Your task to perform on an android device: Open battery settings Image 0: 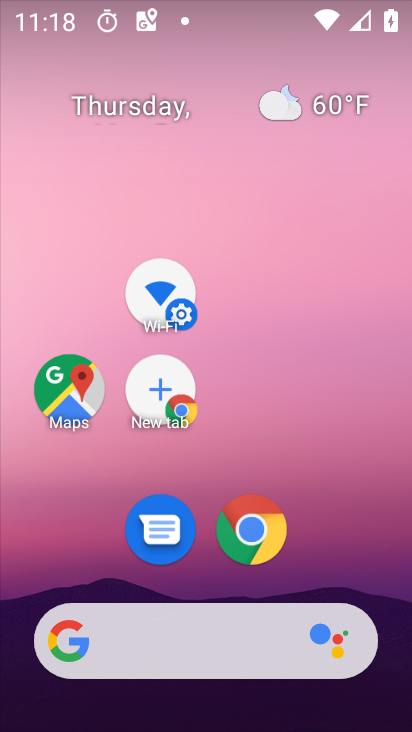
Step 0: drag from (354, 585) to (165, 221)
Your task to perform on an android device: Open battery settings Image 1: 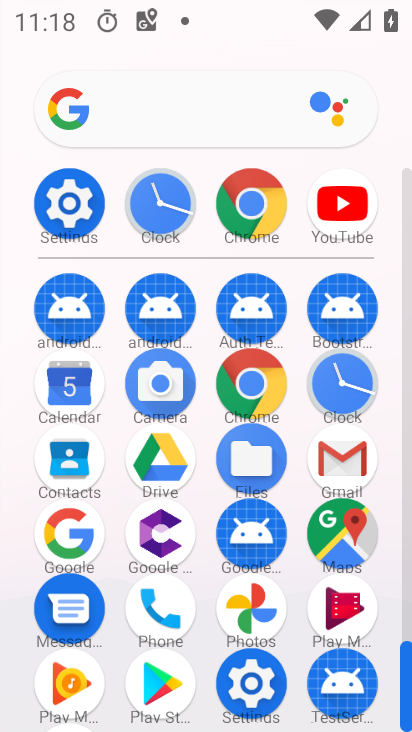
Step 1: click (250, 683)
Your task to perform on an android device: Open battery settings Image 2: 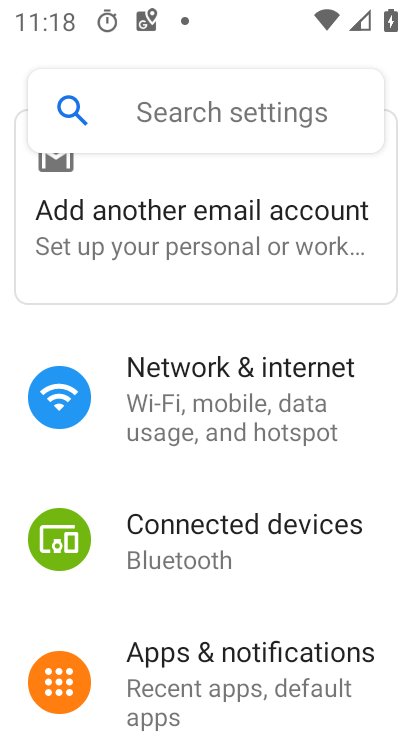
Step 2: click (195, 411)
Your task to perform on an android device: Open battery settings Image 3: 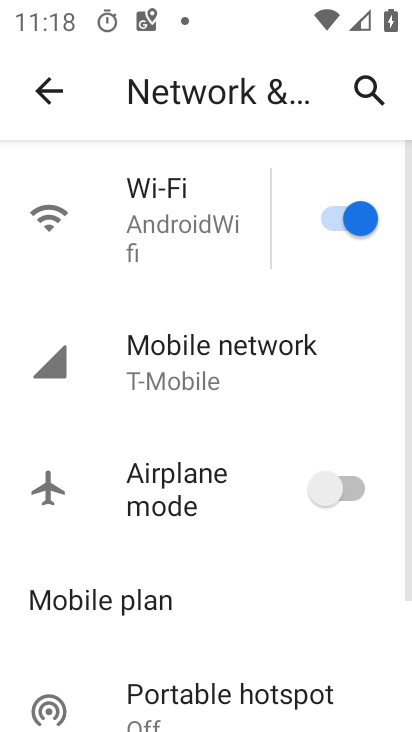
Step 3: click (42, 105)
Your task to perform on an android device: Open battery settings Image 4: 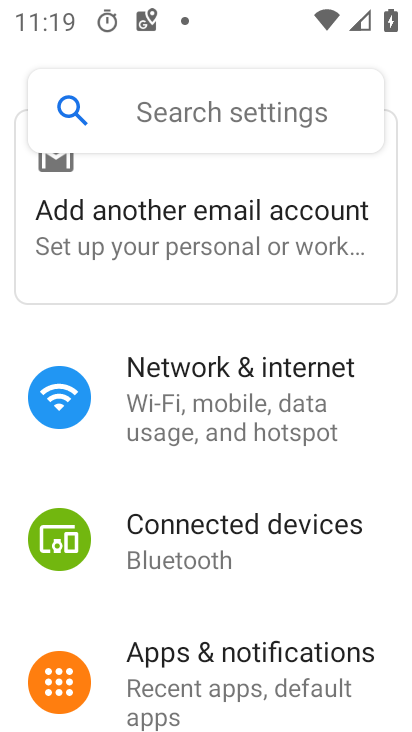
Step 4: drag from (276, 638) to (268, 229)
Your task to perform on an android device: Open battery settings Image 5: 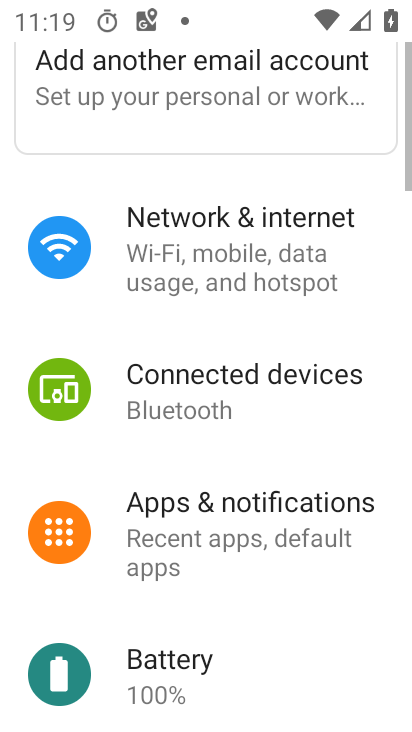
Step 5: click (197, 252)
Your task to perform on an android device: Open battery settings Image 6: 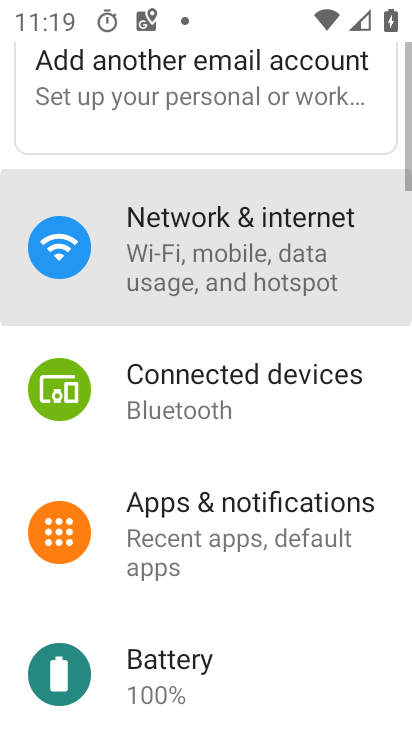
Step 6: drag from (203, 513) to (149, 100)
Your task to perform on an android device: Open battery settings Image 7: 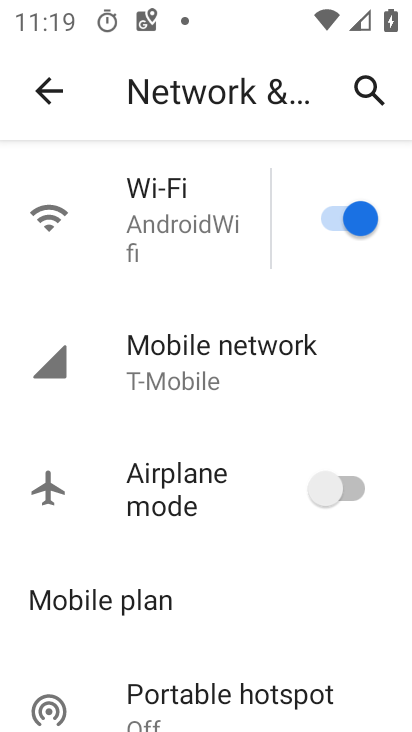
Step 7: click (30, 97)
Your task to perform on an android device: Open battery settings Image 8: 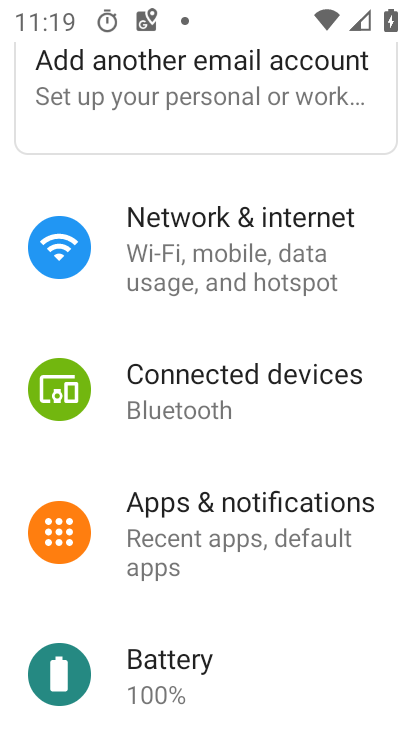
Step 8: drag from (210, 646) to (193, 220)
Your task to perform on an android device: Open battery settings Image 9: 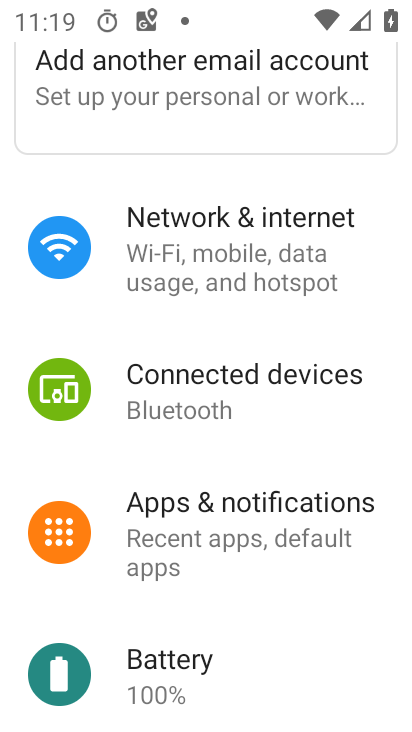
Step 9: click (154, 676)
Your task to perform on an android device: Open battery settings Image 10: 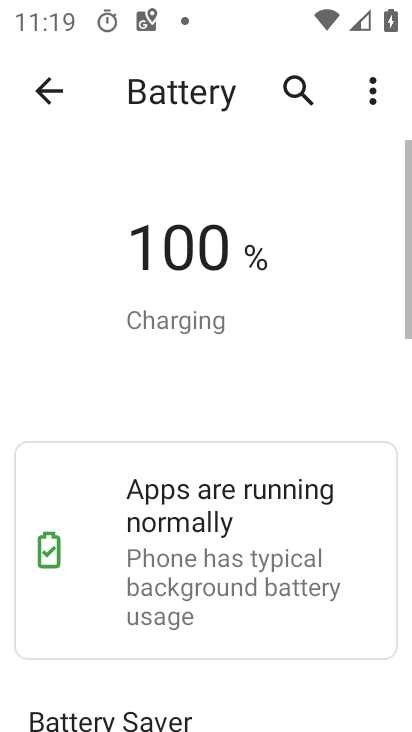
Step 10: drag from (155, 673) to (156, 195)
Your task to perform on an android device: Open battery settings Image 11: 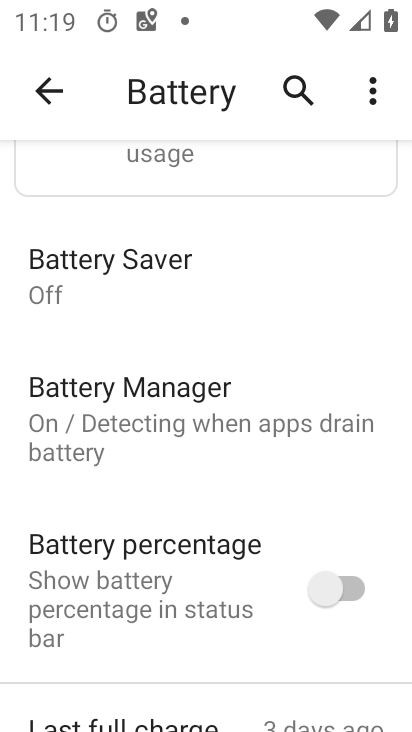
Step 11: drag from (200, 590) to (177, 162)
Your task to perform on an android device: Open battery settings Image 12: 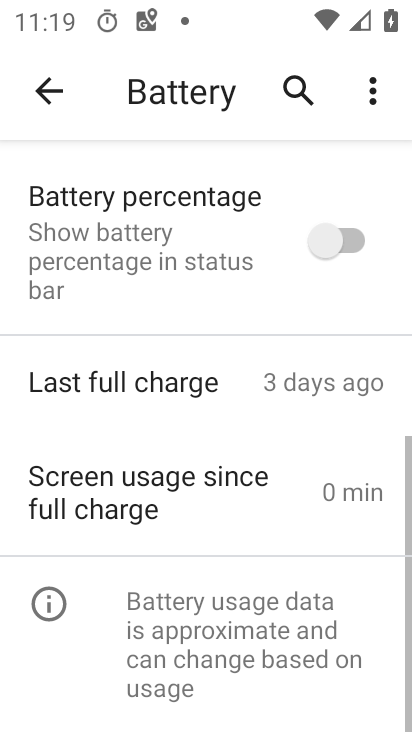
Step 12: drag from (194, 505) to (137, 132)
Your task to perform on an android device: Open battery settings Image 13: 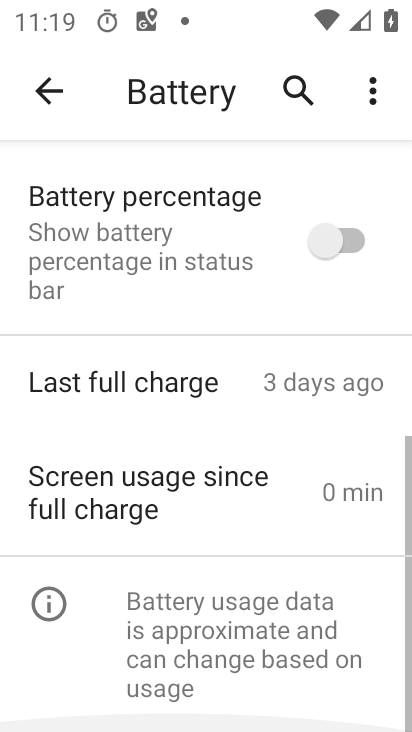
Step 13: drag from (199, 527) to (169, 168)
Your task to perform on an android device: Open battery settings Image 14: 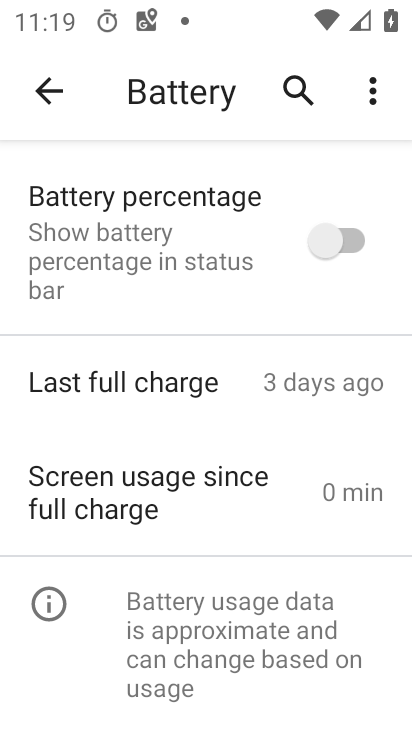
Step 14: drag from (236, 433) to (226, 175)
Your task to perform on an android device: Open battery settings Image 15: 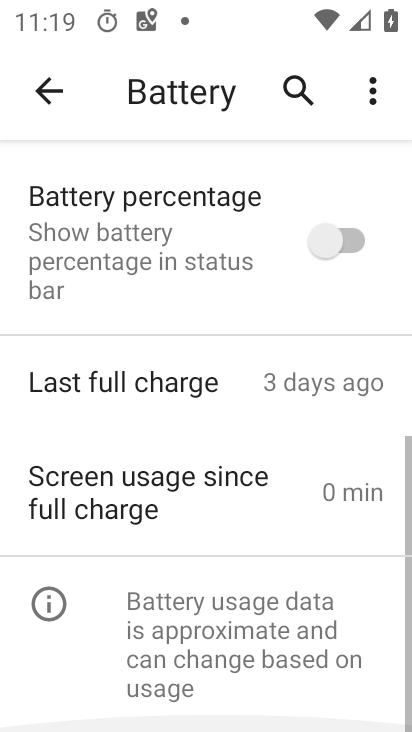
Step 15: drag from (230, 572) to (190, 138)
Your task to perform on an android device: Open battery settings Image 16: 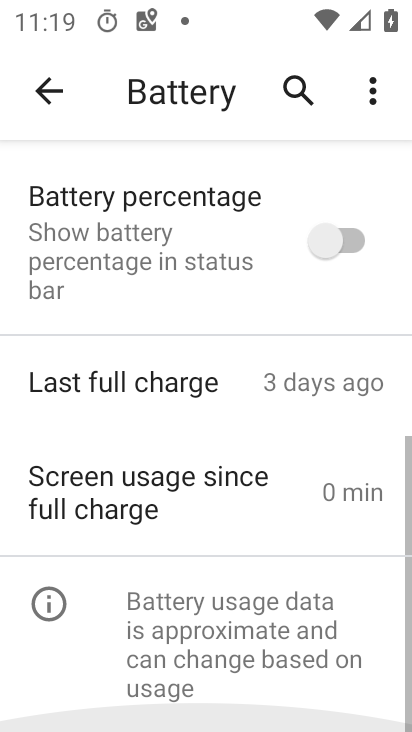
Step 16: click (176, 159)
Your task to perform on an android device: Open battery settings Image 17: 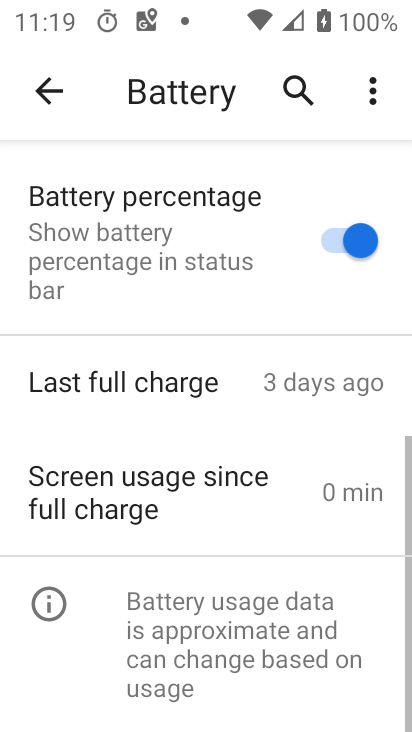
Step 17: task complete